Your task to perform on an android device: turn notification dots off Image 0: 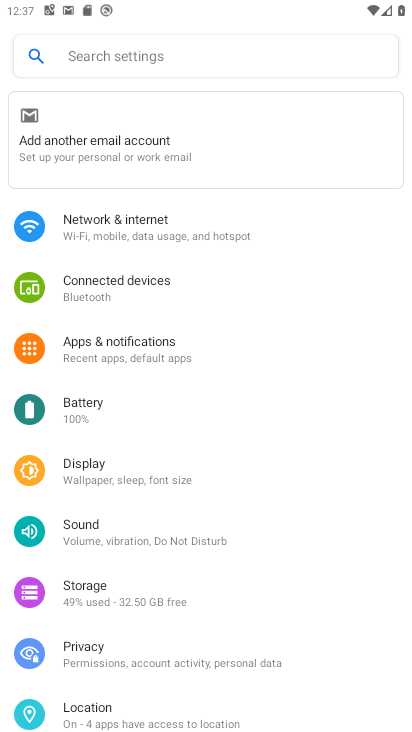
Step 0: click (134, 352)
Your task to perform on an android device: turn notification dots off Image 1: 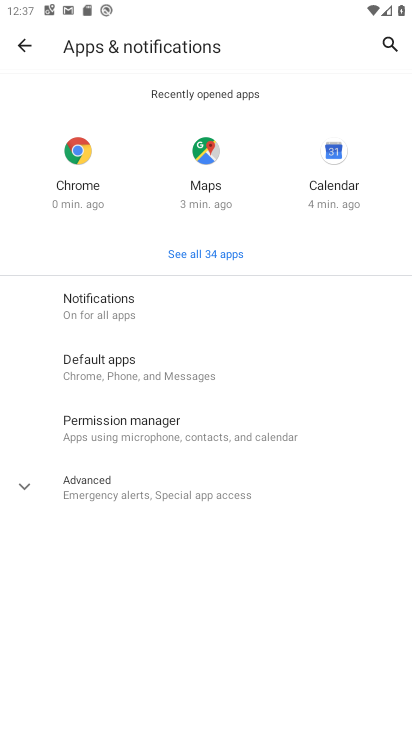
Step 1: click (181, 308)
Your task to perform on an android device: turn notification dots off Image 2: 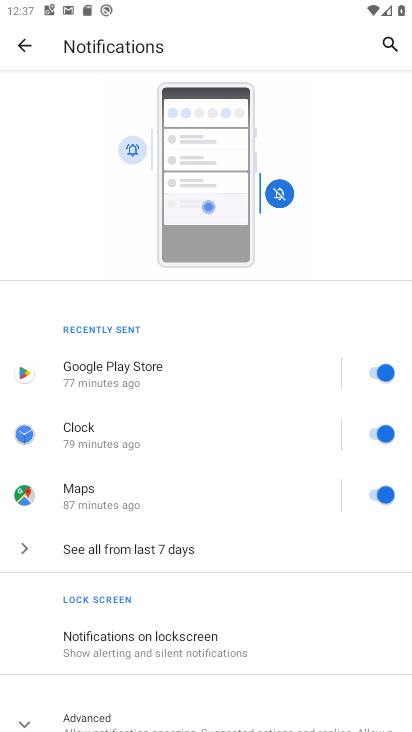
Step 2: drag from (165, 629) to (250, 304)
Your task to perform on an android device: turn notification dots off Image 3: 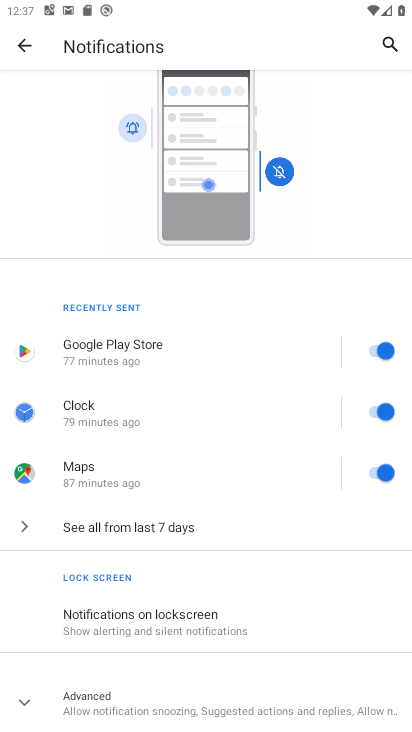
Step 3: drag from (194, 584) to (208, 322)
Your task to perform on an android device: turn notification dots off Image 4: 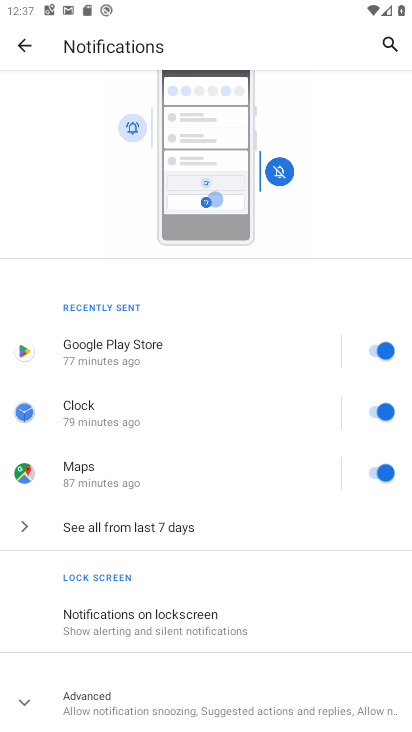
Step 4: drag from (235, 559) to (295, 259)
Your task to perform on an android device: turn notification dots off Image 5: 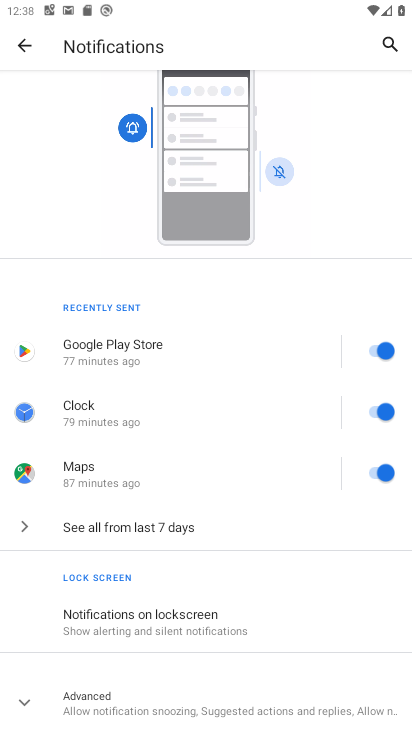
Step 5: drag from (218, 606) to (335, 243)
Your task to perform on an android device: turn notification dots off Image 6: 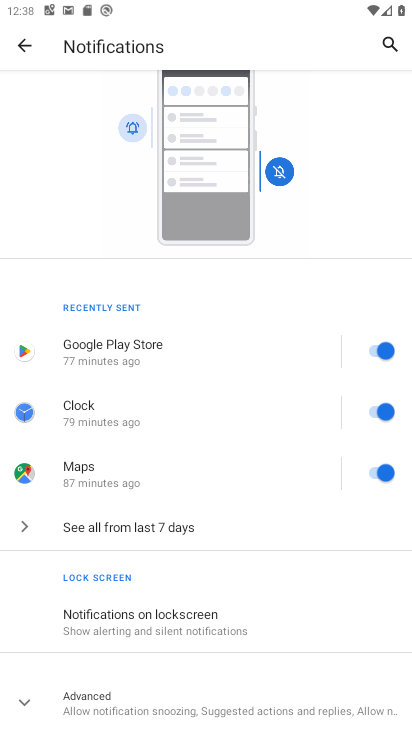
Step 6: click (213, 713)
Your task to perform on an android device: turn notification dots off Image 7: 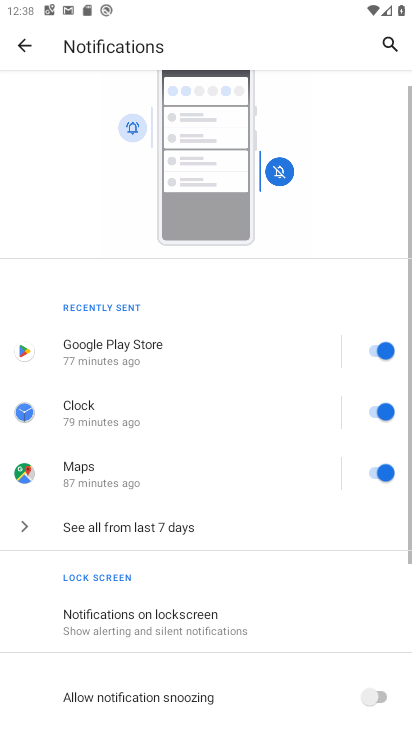
Step 7: task complete